Your task to perform on an android device: open app "Adobe Acrobat Reader: Edit PDF" (install if not already installed) Image 0: 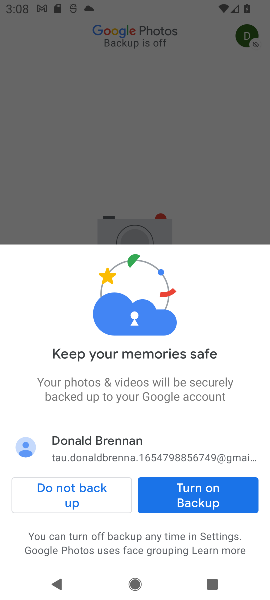
Step 0: press home button
Your task to perform on an android device: open app "Adobe Acrobat Reader: Edit PDF" (install if not already installed) Image 1: 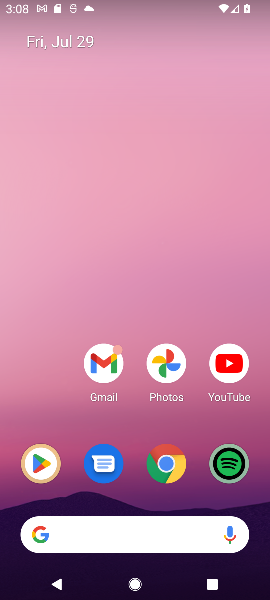
Step 1: drag from (108, 534) to (165, 147)
Your task to perform on an android device: open app "Adobe Acrobat Reader: Edit PDF" (install if not already installed) Image 2: 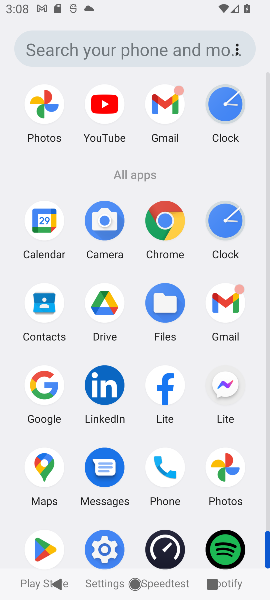
Step 2: drag from (130, 426) to (129, 263)
Your task to perform on an android device: open app "Adobe Acrobat Reader: Edit PDF" (install if not already installed) Image 3: 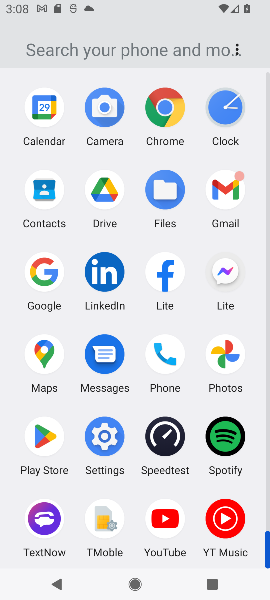
Step 3: click (46, 437)
Your task to perform on an android device: open app "Adobe Acrobat Reader: Edit PDF" (install if not already installed) Image 4: 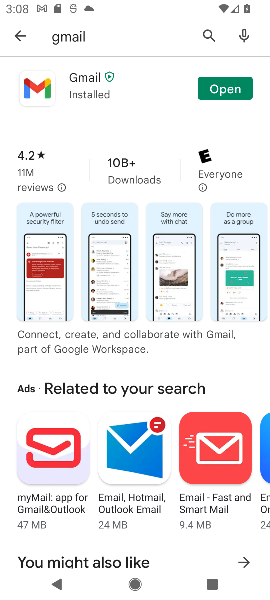
Step 4: click (209, 35)
Your task to perform on an android device: open app "Adobe Acrobat Reader: Edit PDF" (install if not already installed) Image 5: 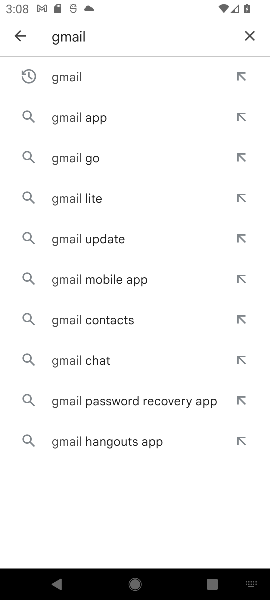
Step 5: click (254, 35)
Your task to perform on an android device: open app "Adobe Acrobat Reader: Edit PDF" (install if not already installed) Image 6: 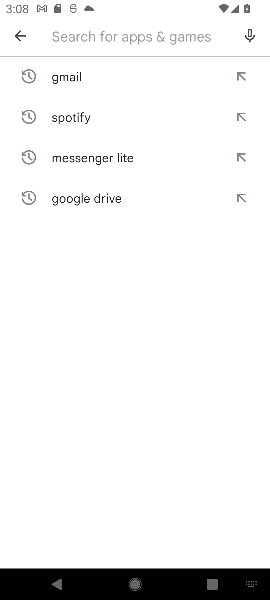
Step 6: click (112, 24)
Your task to perform on an android device: open app "Adobe Acrobat Reader: Edit PDF" (install if not already installed) Image 7: 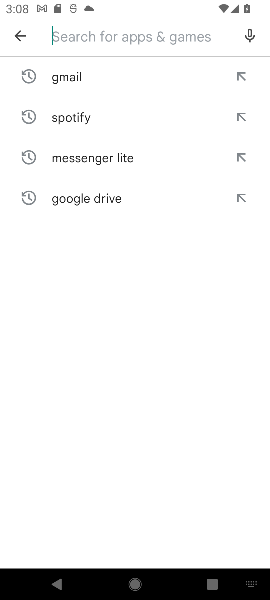
Step 7: type "Adobe Acrobat Reader: Edit PDF"
Your task to perform on an android device: open app "Adobe Acrobat Reader: Edit PDF" (install if not already installed) Image 8: 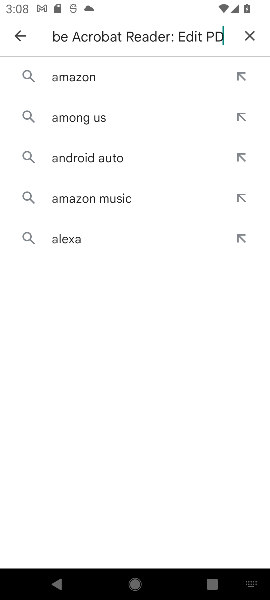
Step 8: type ""
Your task to perform on an android device: open app "Adobe Acrobat Reader: Edit PDF" (install if not already installed) Image 9: 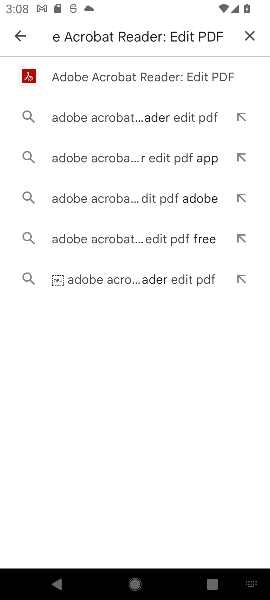
Step 9: click (113, 84)
Your task to perform on an android device: open app "Adobe Acrobat Reader: Edit PDF" (install if not already installed) Image 10: 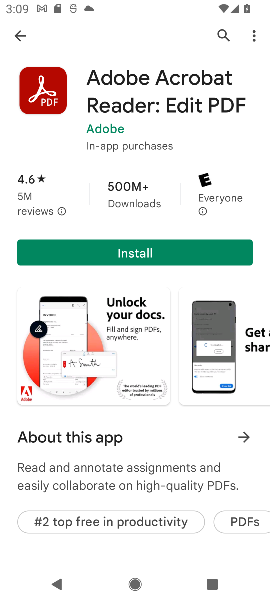
Step 10: click (115, 245)
Your task to perform on an android device: open app "Adobe Acrobat Reader: Edit PDF" (install if not already installed) Image 11: 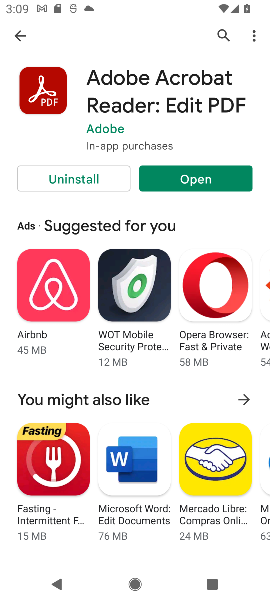
Step 11: click (200, 176)
Your task to perform on an android device: open app "Adobe Acrobat Reader: Edit PDF" (install if not already installed) Image 12: 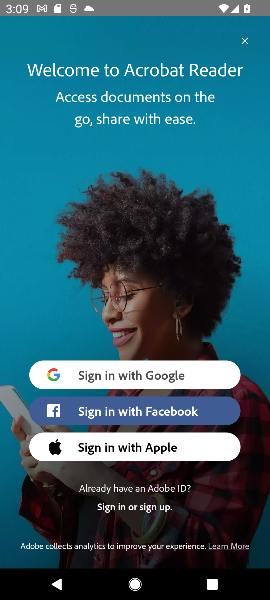
Step 12: task complete